Your task to perform on an android device: Toggle the flashlight Image 0: 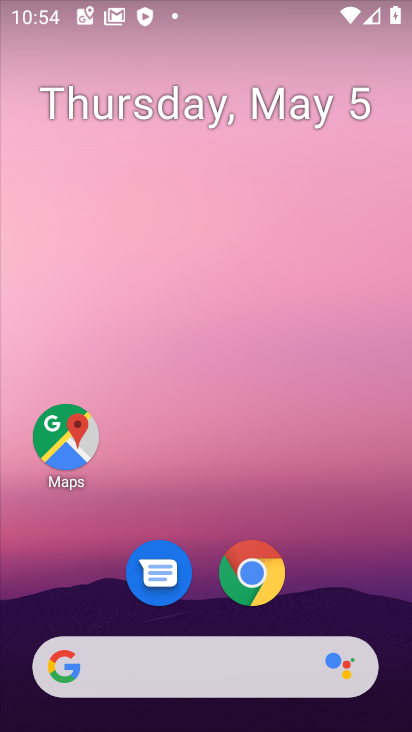
Step 0: drag from (337, 478) to (322, 252)
Your task to perform on an android device: Toggle the flashlight Image 1: 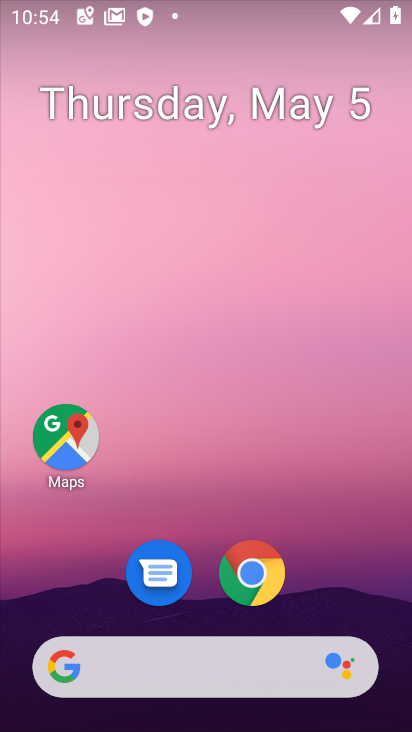
Step 1: drag from (312, 593) to (322, 142)
Your task to perform on an android device: Toggle the flashlight Image 2: 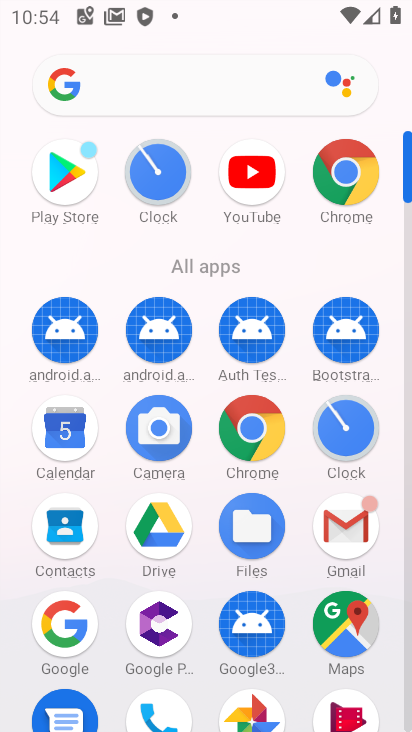
Step 2: drag from (277, 627) to (312, 204)
Your task to perform on an android device: Toggle the flashlight Image 3: 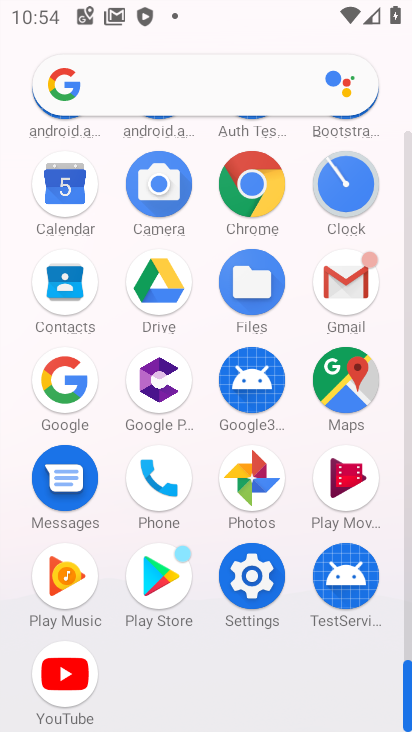
Step 3: click (259, 573)
Your task to perform on an android device: Toggle the flashlight Image 4: 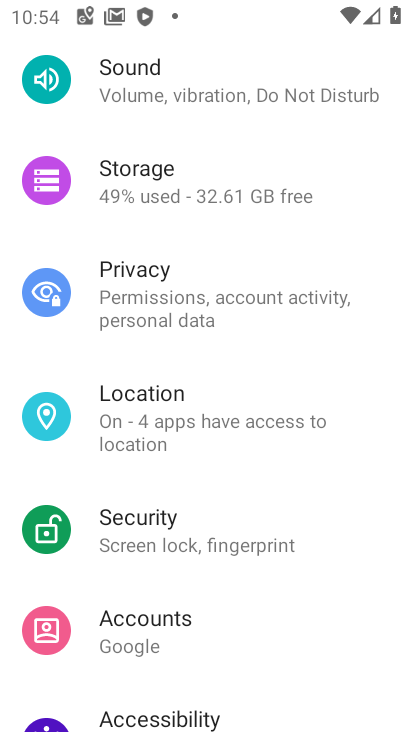
Step 4: drag from (273, 648) to (346, 161)
Your task to perform on an android device: Toggle the flashlight Image 5: 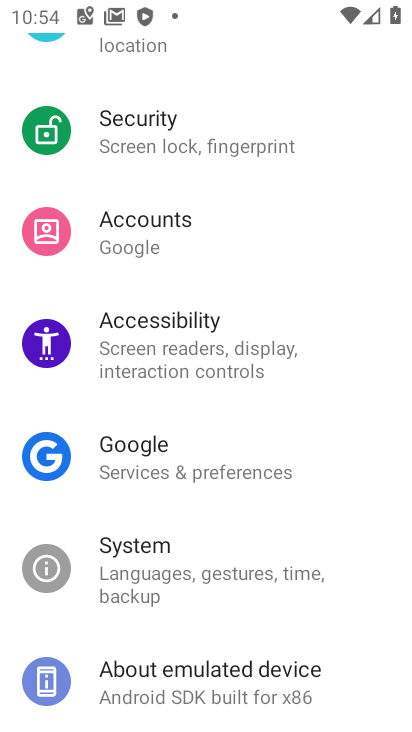
Step 5: click (295, 647)
Your task to perform on an android device: Toggle the flashlight Image 6: 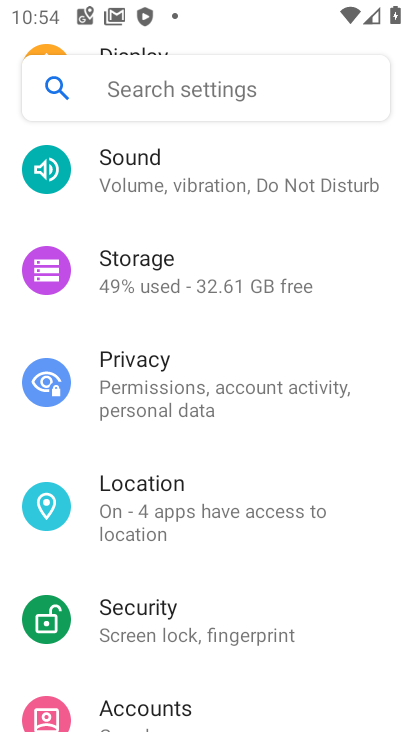
Step 6: task complete